Your task to perform on an android device: change alarm snooze length Image 0: 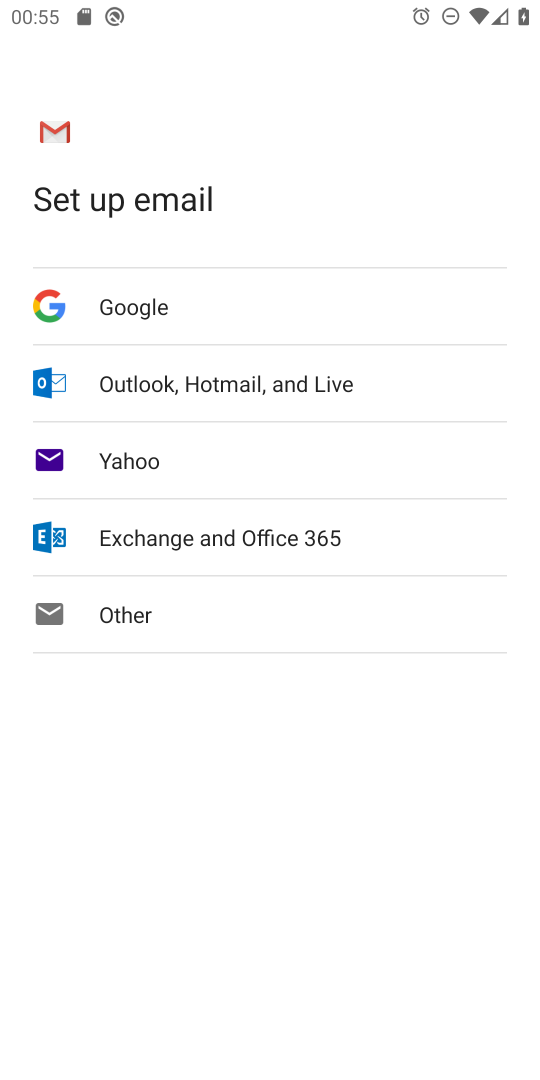
Step 0: press home button
Your task to perform on an android device: change alarm snooze length Image 1: 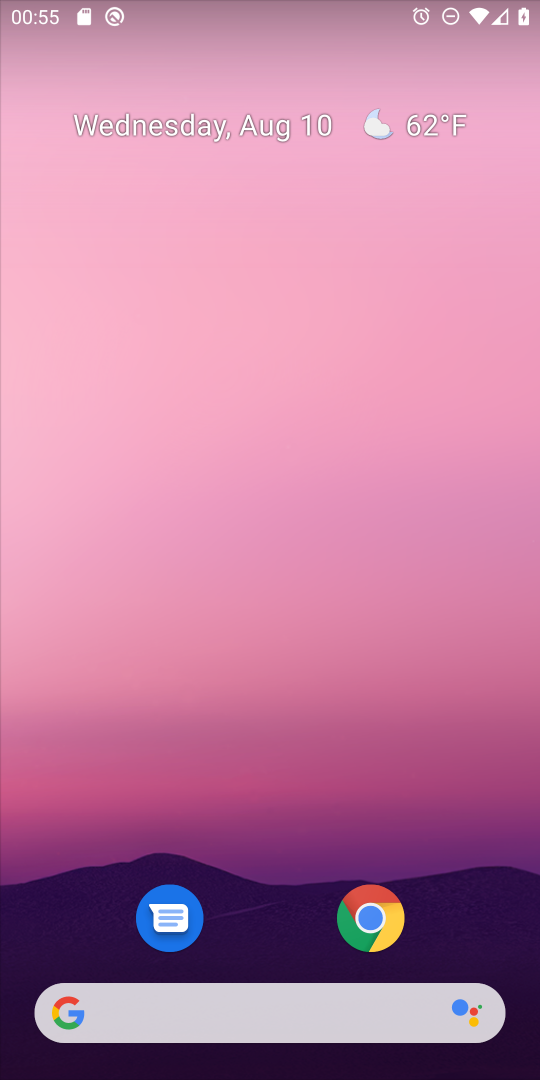
Step 1: drag from (273, 936) to (276, 261)
Your task to perform on an android device: change alarm snooze length Image 2: 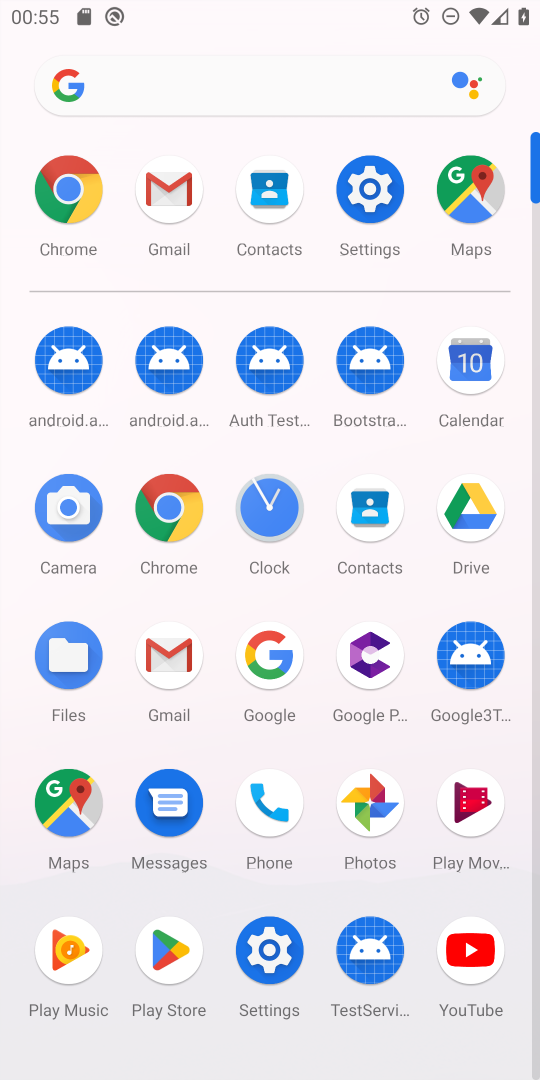
Step 2: click (286, 505)
Your task to perform on an android device: change alarm snooze length Image 3: 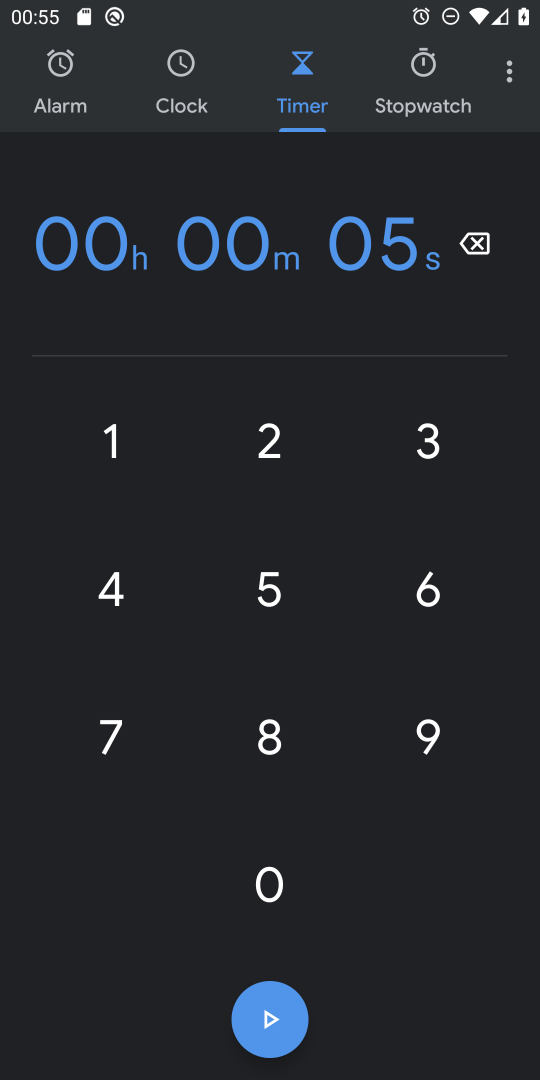
Step 3: click (510, 71)
Your task to perform on an android device: change alarm snooze length Image 4: 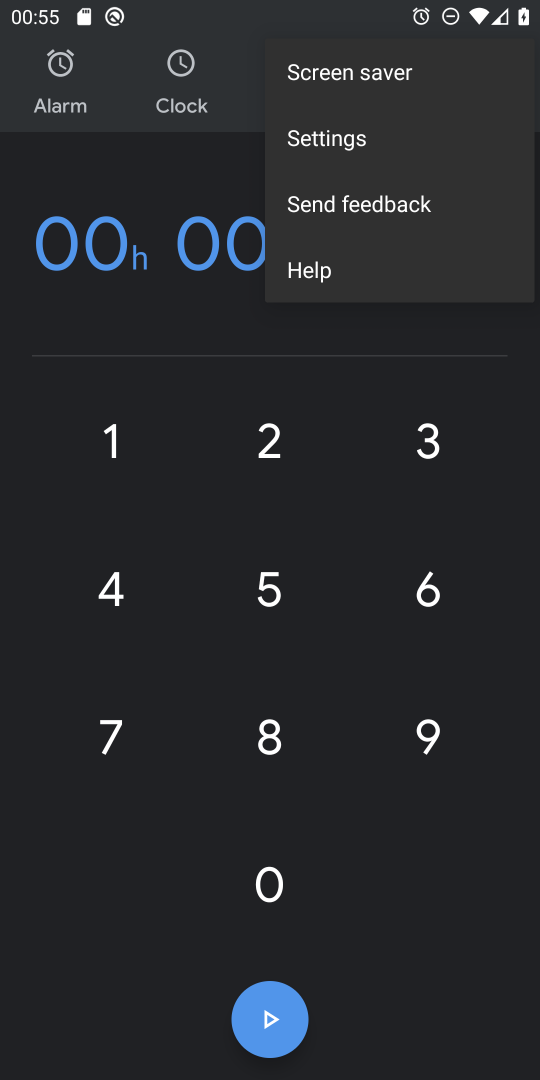
Step 4: click (322, 147)
Your task to perform on an android device: change alarm snooze length Image 5: 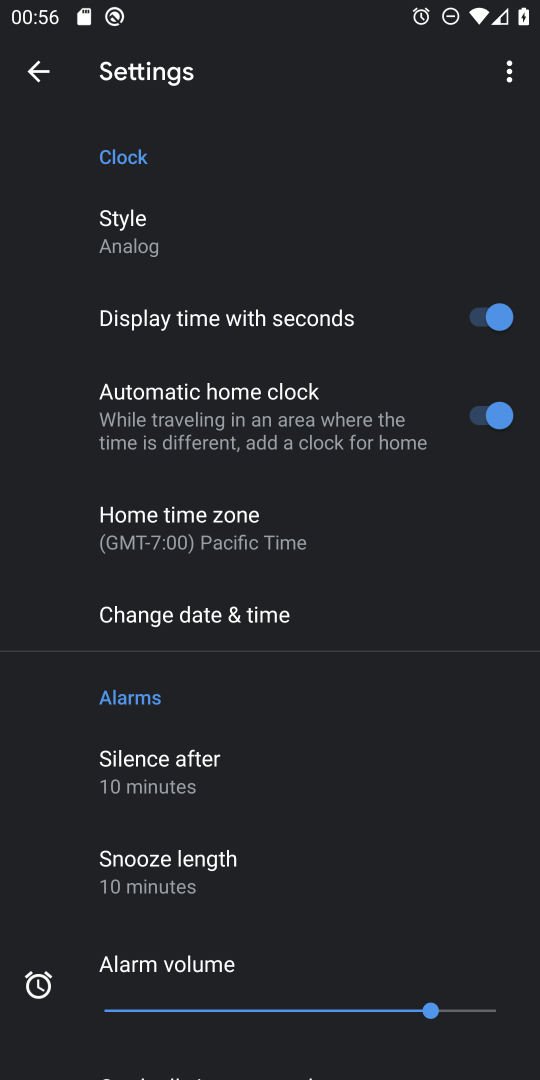
Step 5: click (205, 892)
Your task to perform on an android device: change alarm snooze length Image 6: 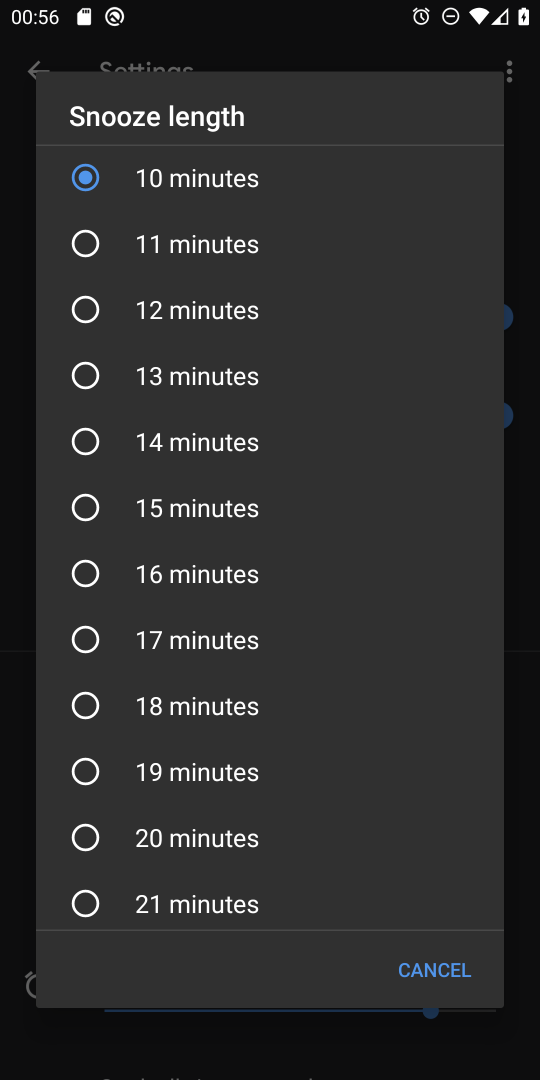
Step 6: click (183, 252)
Your task to perform on an android device: change alarm snooze length Image 7: 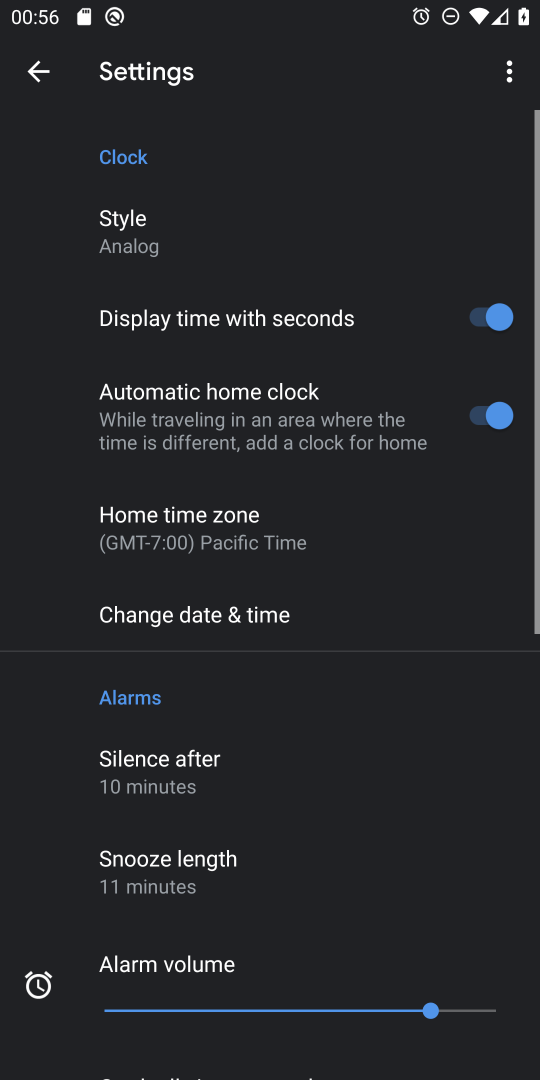
Step 7: click (204, 246)
Your task to perform on an android device: change alarm snooze length Image 8: 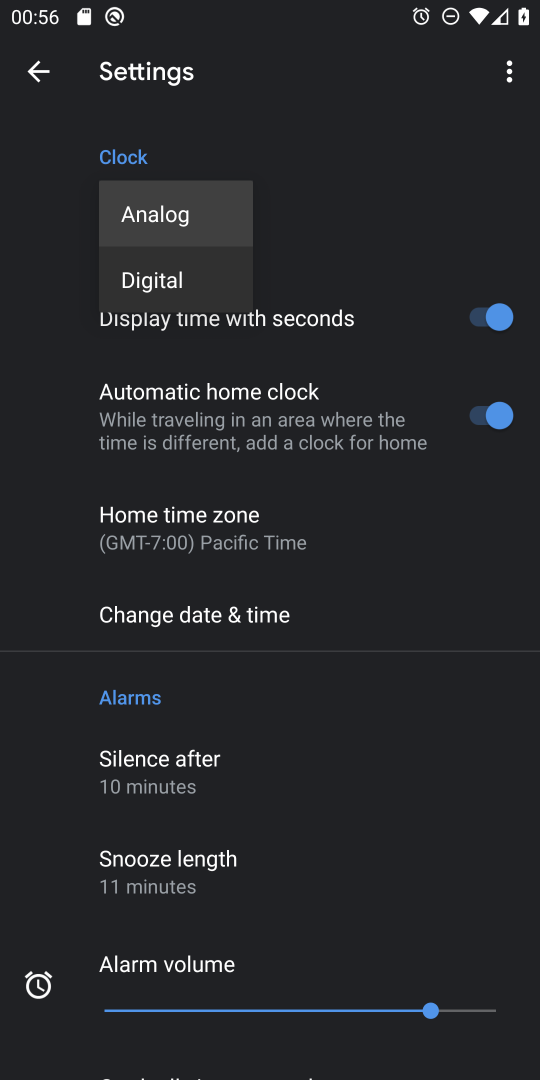
Step 8: task complete